Your task to perform on an android device: change the clock display to analog Image 0: 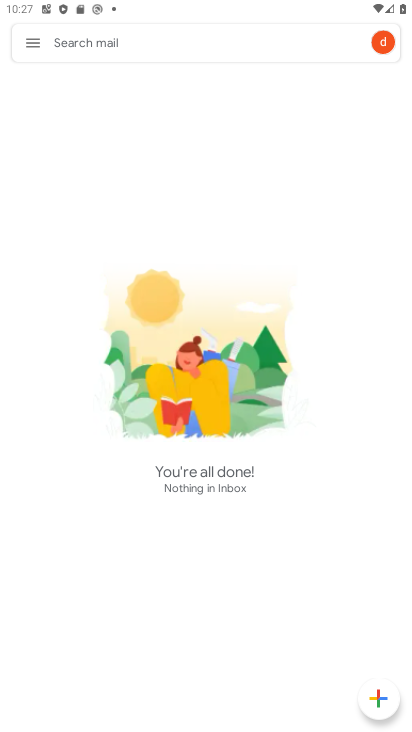
Step 0: press home button
Your task to perform on an android device: change the clock display to analog Image 1: 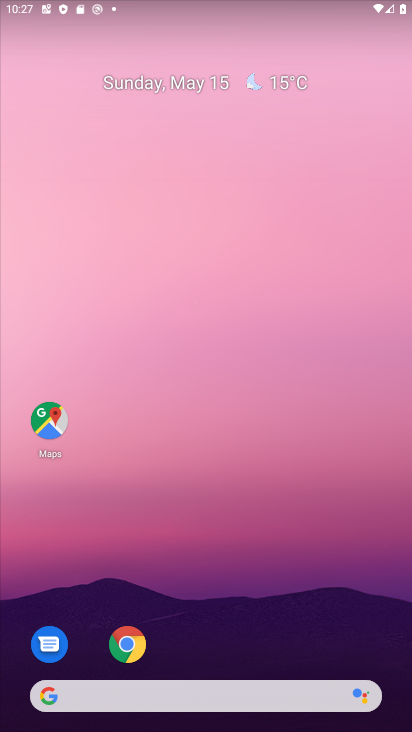
Step 1: drag from (149, 670) to (198, 221)
Your task to perform on an android device: change the clock display to analog Image 2: 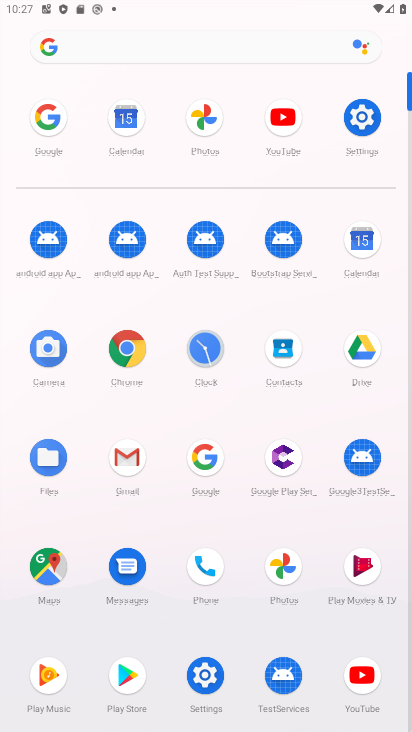
Step 2: click (199, 338)
Your task to perform on an android device: change the clock display to analog Image 3: 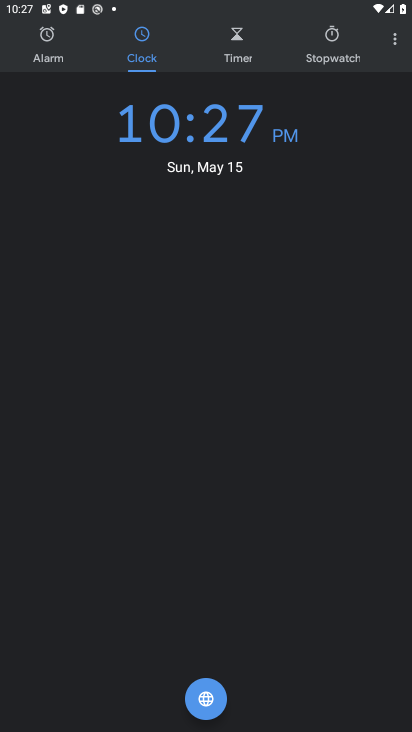
Step 3: click (395, 40)
Your task to perform on an android device: change the clock display to analog Image 4: 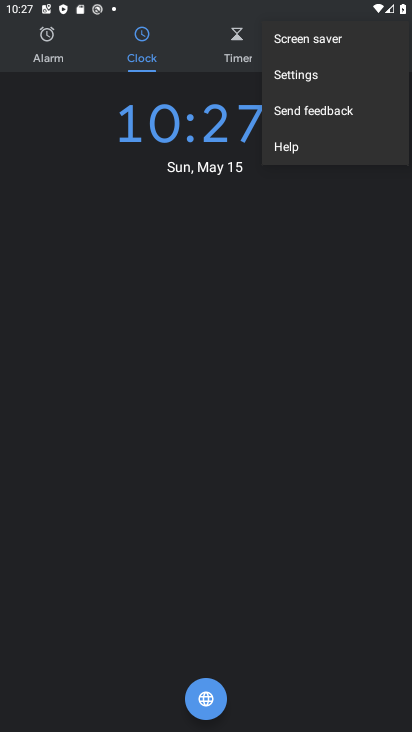
Step 4: click (295, 66)
Your task to perform on an android device: change the clock display to analog Image 5: 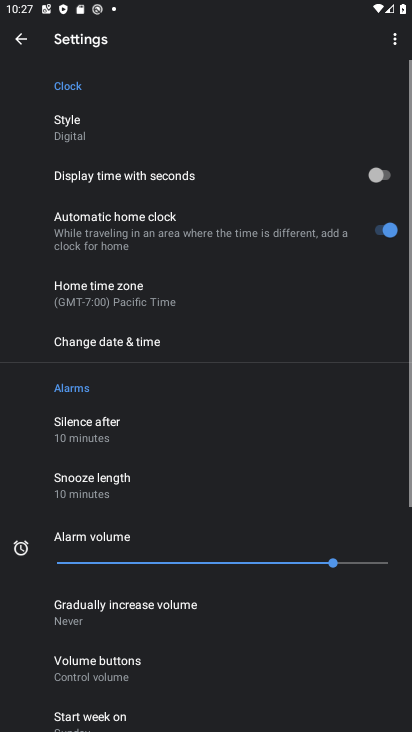
Step 5: click (89, 131)
Your task to perform on an android device: change the clock display to analog Image 6: 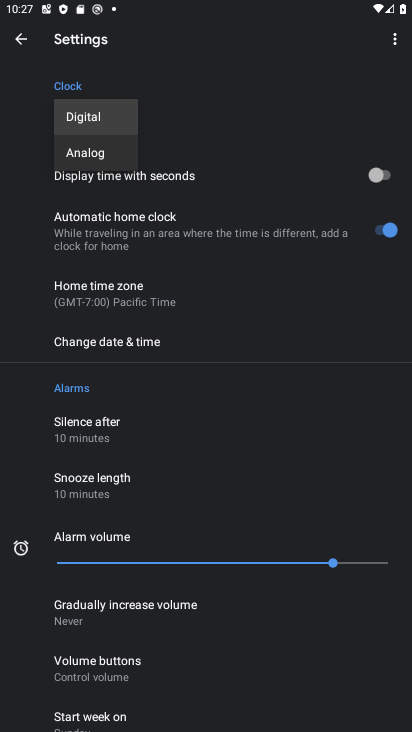
Step 6: click (79, 153)
Your task to perform on an android device: change the clock display to analog Image 7: 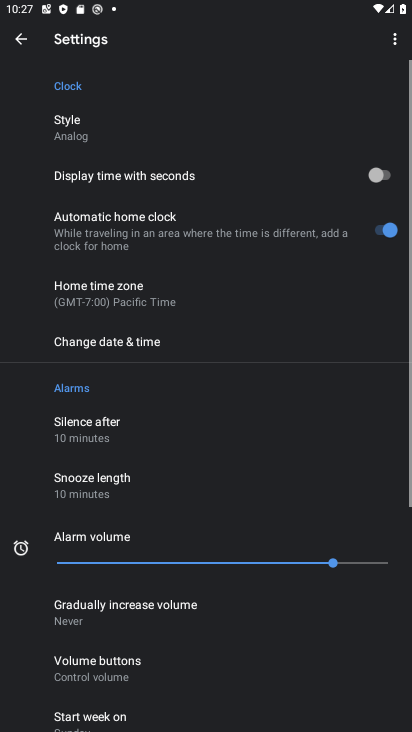
Step 7: task complete